Your task to perform on an android device: turn off translation in the chrome app Image 0: 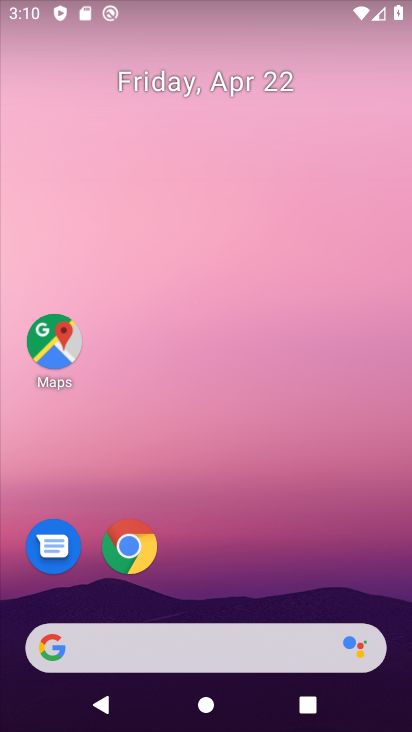
Step 0: click (154, 551)
Your task to perform on an android device: turn off translation in the chrome app Image 1: 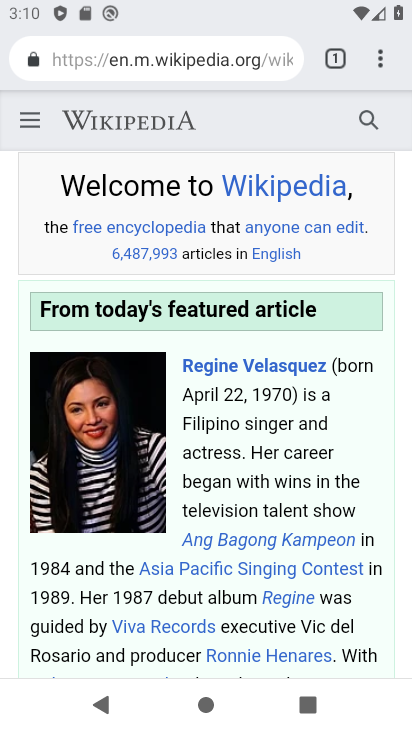
Step 1: drag from (380, 61) to (180, 571)
Your task to perform on an android device: turn off translation in the chrome app Image 2: 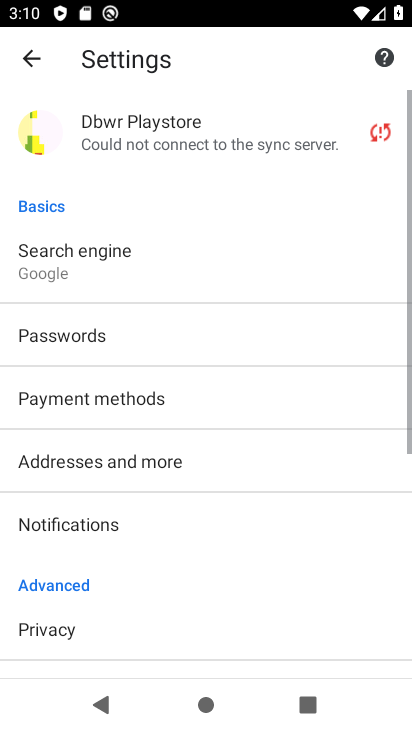
Step 2: drag from (181, 594) to (201, 233)
Your task to perform on an android device: turn off translation in the chrome app Image 3: 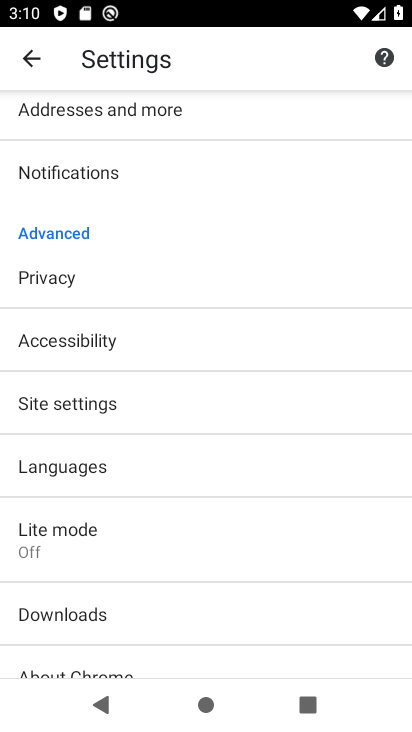
Step 3: drag from (172, 622) to (204, 342)
Your task to perform on an android device: turn off translation in the chrome app Image 4: 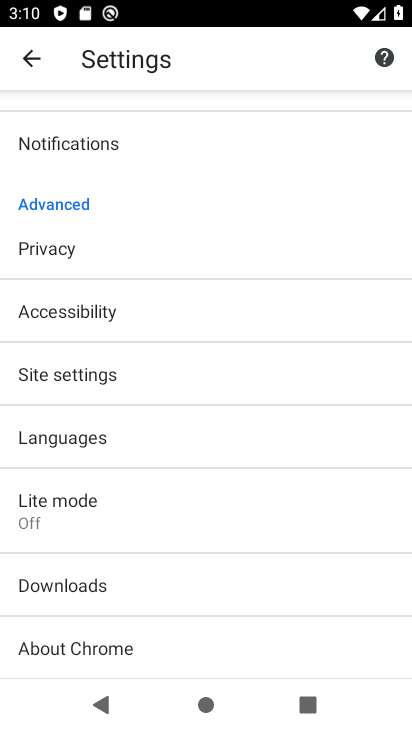
Step 4: click (79, 439)
Your task to perform on an android device: turn off translation in the chrome app Image 5: 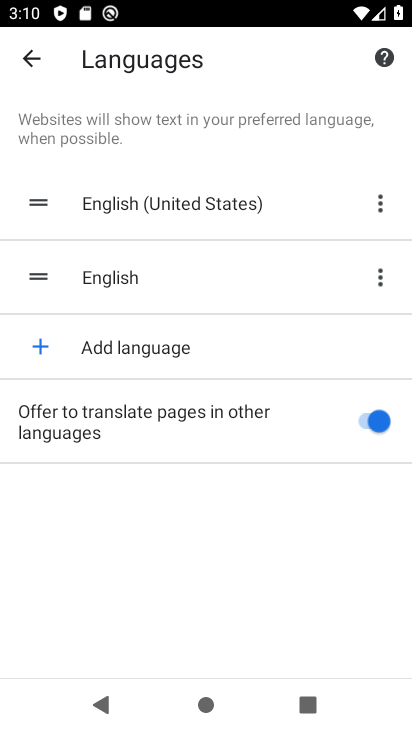
Step 5: click (370, 417)
Your task to perform on an android device: turn off translation in the chrome app Image 6: 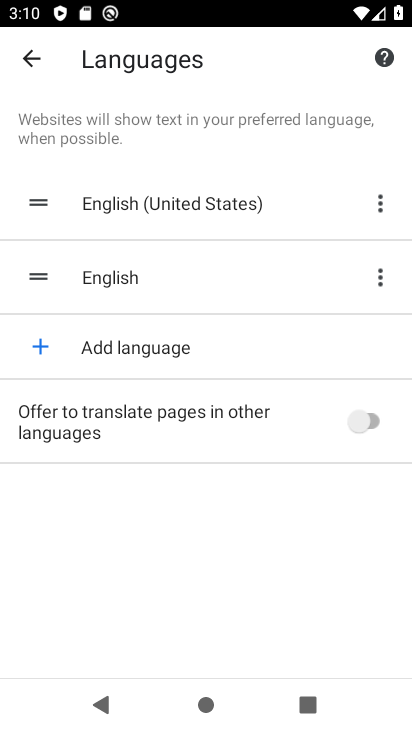
Step 6: task complete